Your task to perform on an android device: What's on the menu at Domino's? Image 0: 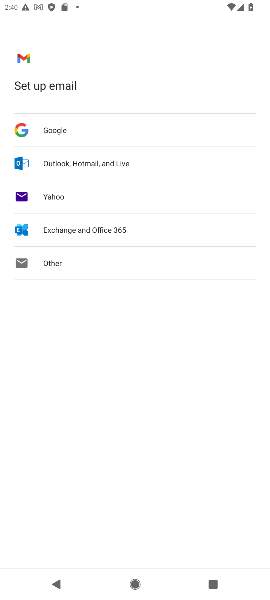
Step 0: press home button
Your task to perform on an android device: What's on the menu at Domino's? Image 1: 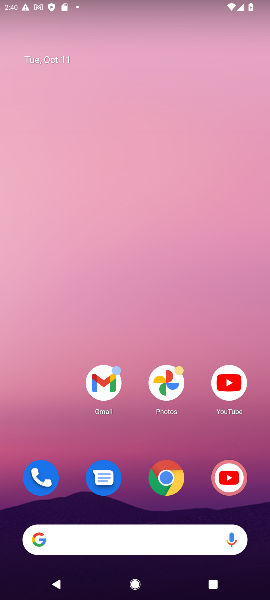
Step 1: click (158, 487)
Your task to perform on an android device: What's on the menu at Domino's? Image 2: 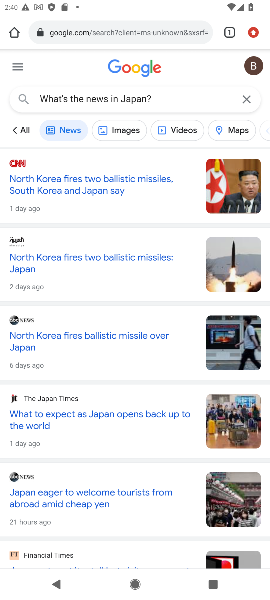
Step 2: click (177, 100)
Your task to perform on an android device: What's on the menu at Domino's? Image 3: 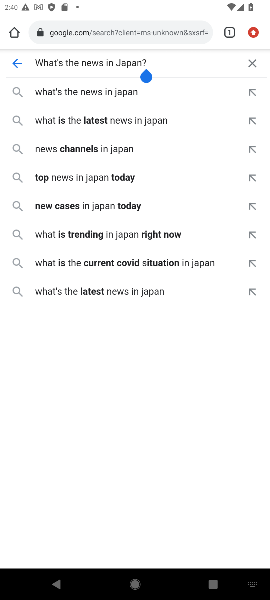
Step 3: click (250, 65)
Your task to perform on an android device: What's on the menu at Domino's? Image 4: 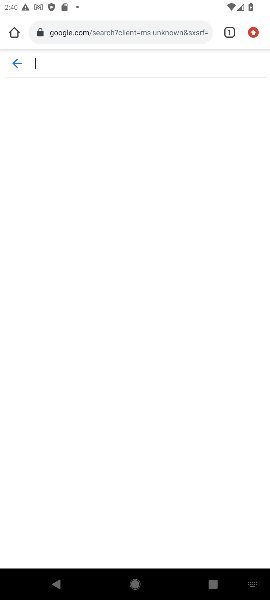
Step 4: type "What's on the menu at Domino's?"
Your task to perform on an android device: What's on the menu at Domino's? Image 5: 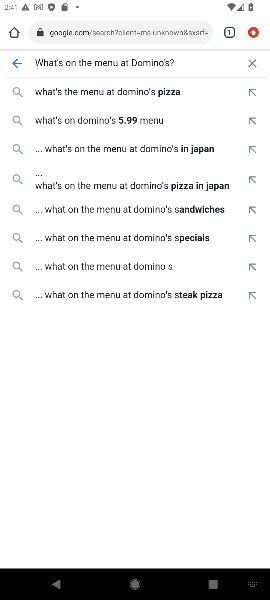
Step 5: press enter
Your task to perform on an android device: What's on the menu at Domino's? Image 6: 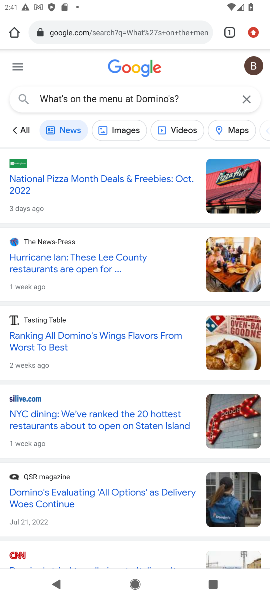
Step 6: click (25, 136)
Your task to perform on an android device: What's on the menu at Domino's? Image 7: 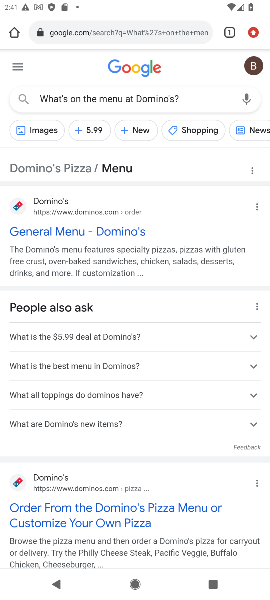
Step 7: click (76, 233)
Your task to perform on an android device: What's on the menu at Domino's? Image 8: 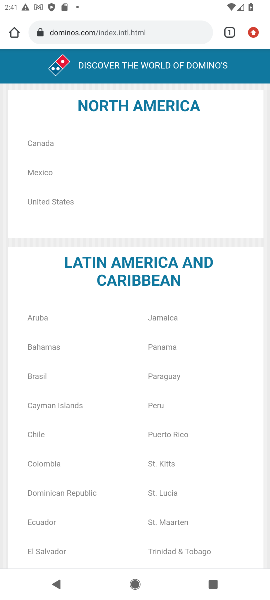
Step 8: task complete